Your task to perform on an android device: change notifications settings Image 0: 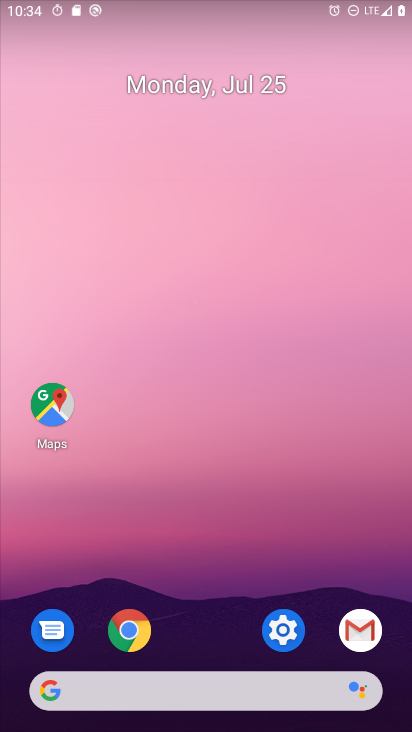
Step 0: click (287, 625)
Your task to perform on an android device: change notifications settings Image 1: 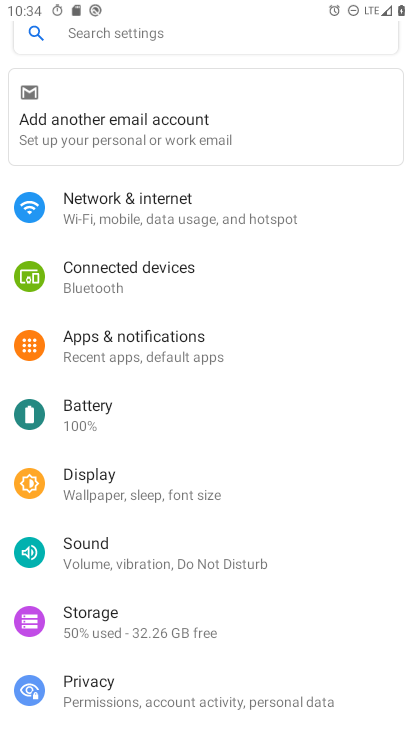
Step 1: click (129, 39)
Your task to perform on an android device: change notifications settings Image 2: 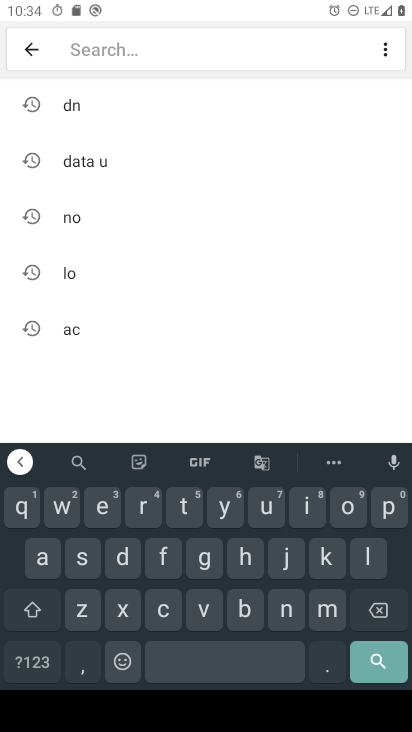
Step 2: click (96, 224)
Your task to perform on an android device: change notifications settings Image 3: 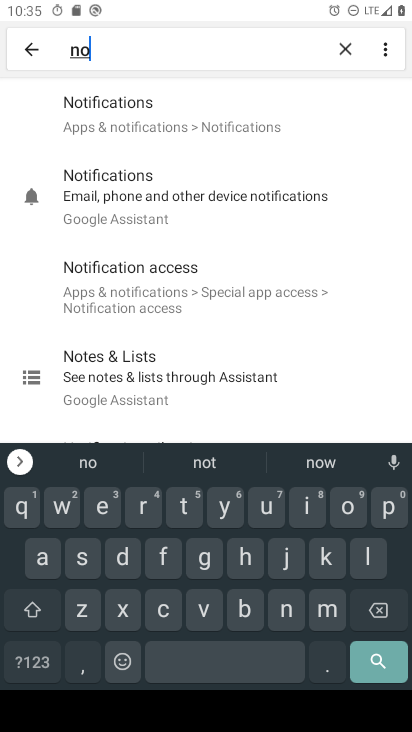
Step 3: click (143, 117)
Your task to perform on an android device: change notifications settings Image 4: 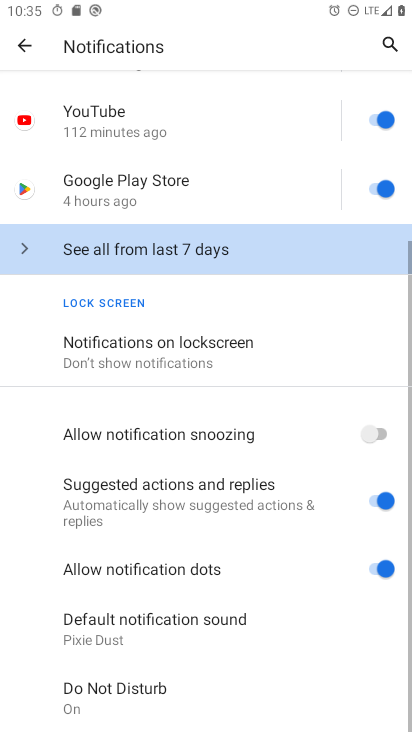
Step 4: click (135, 345)
Your task to perform on an android device: change notifications settings Image 5: 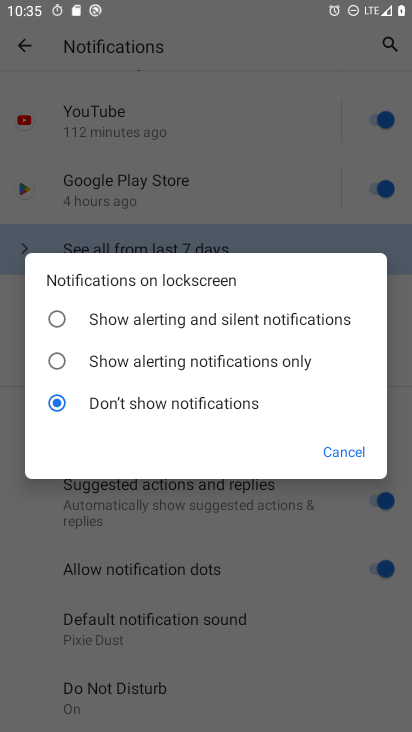
Step 5: click (161, 321)
Your task to perform on an android device: change notifications settings Image 6: 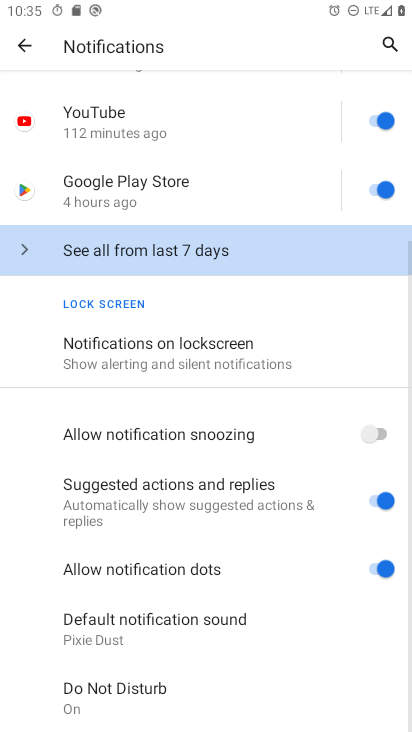
Step 6: task complete